Your task to perform on an android device: change the clock display to analog Image 0: 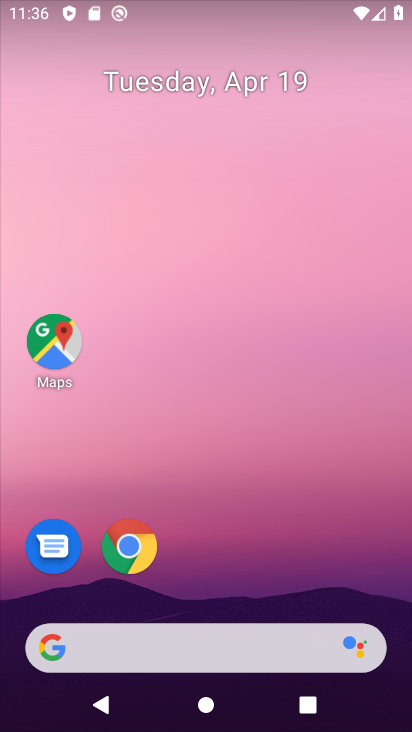
Step 0: drag from (294, 593) to (333, 2)
Your task to perform on an android device: change the clock display to analog Image 1: 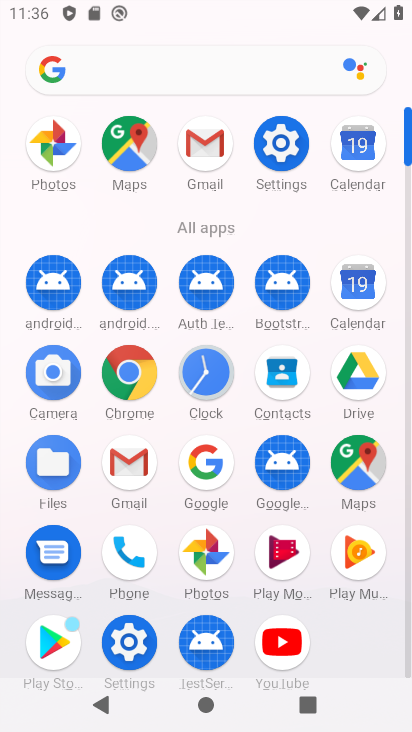
Step 1: click (219, 379)
Your task to perform on an android device: change the clock display to analog Image 2: 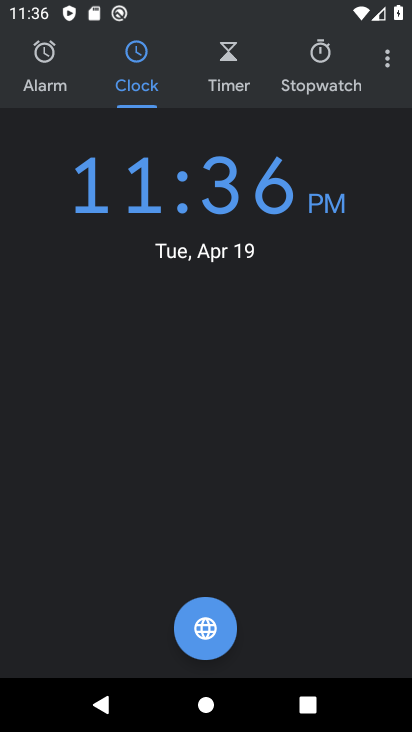
Step 2: click (393, 66)
Your task to perform on an android device: change the clock display to analog Image 3: 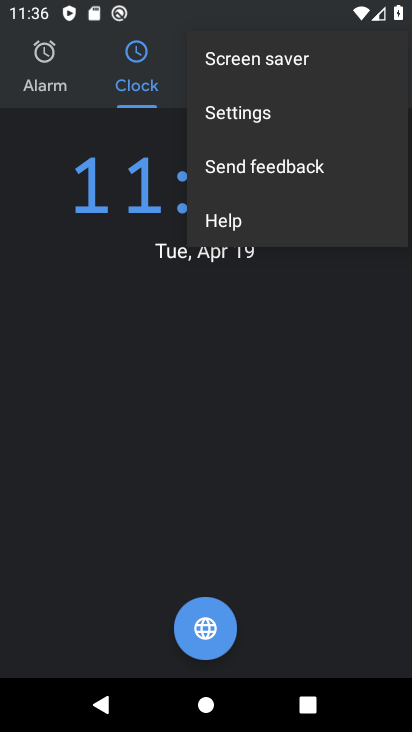
Step 3: click (265, 116)
Your task to perform on an android device: change the clock display to analog Image 4: 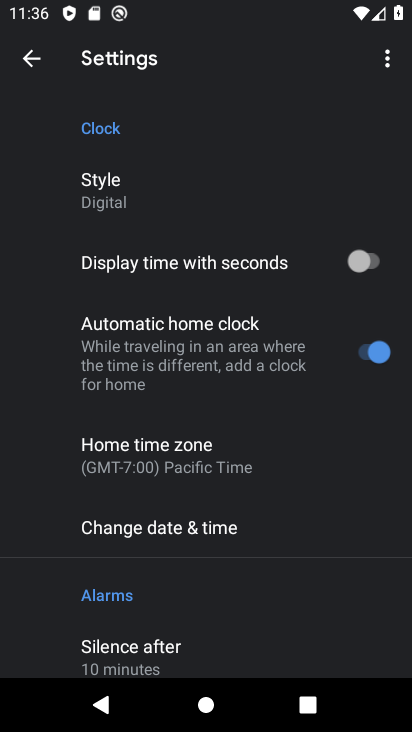
Step 4: click (132, 183)
Your task to perform on an android device: change the clock display to analog Image 5: 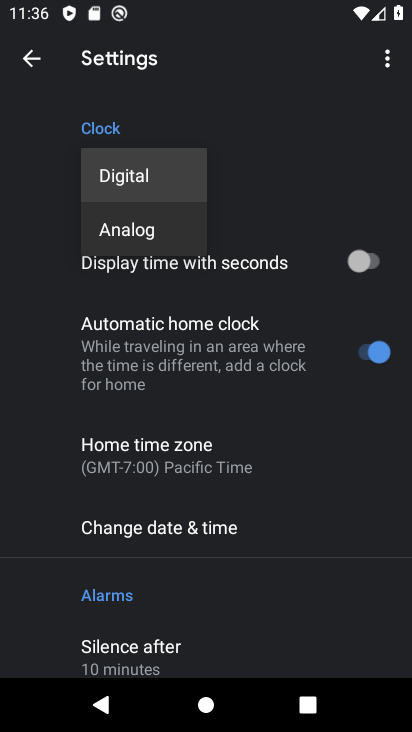
Step 5: click (147, 236)
Your task to perform on an android device: change the clock display to analog Image 6: 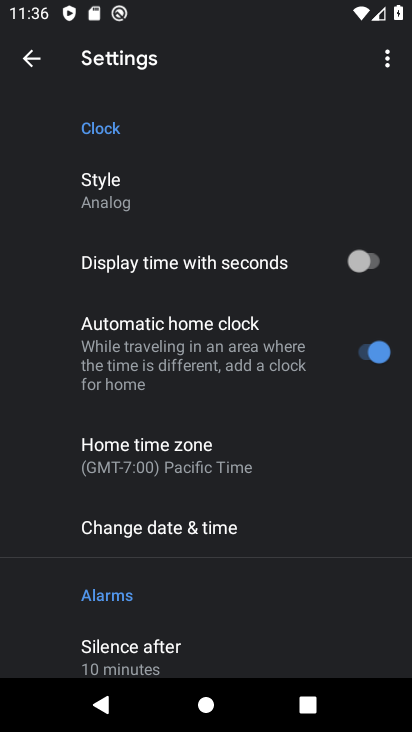
Step 6: task complete